Your task to perform on an android device: change text size in settings app Image 0: 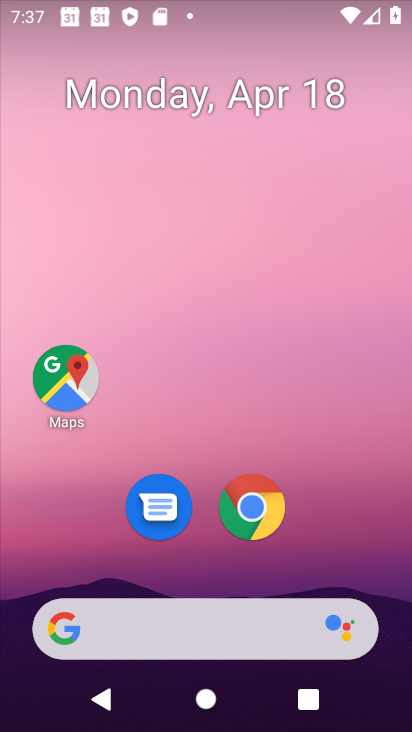
Step 0: drag from (13, 505) to (264, 57)
Your task to perform on an android device: change text size in settings app Image 1: 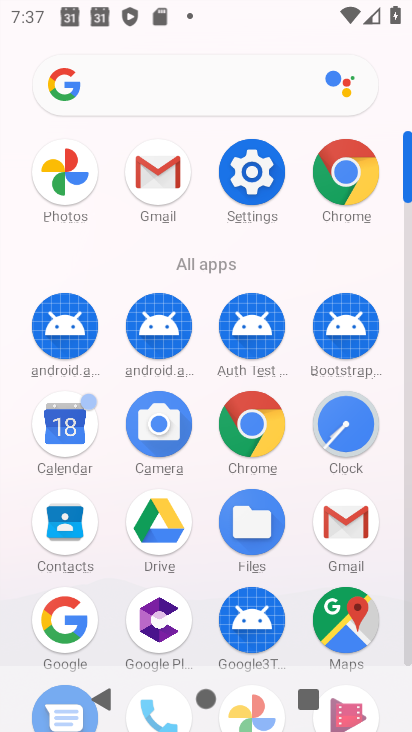
Step 1: click (269, 152)
Your task to perform on an android device: change text size in settings app Image 2: 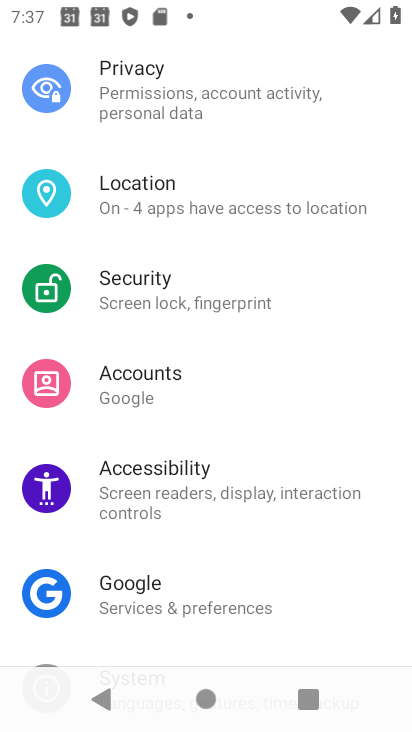
Step 2: drag from (196, 200) to (231, 560)
Your task to perform on an android device: change text size in settings app Image 3: 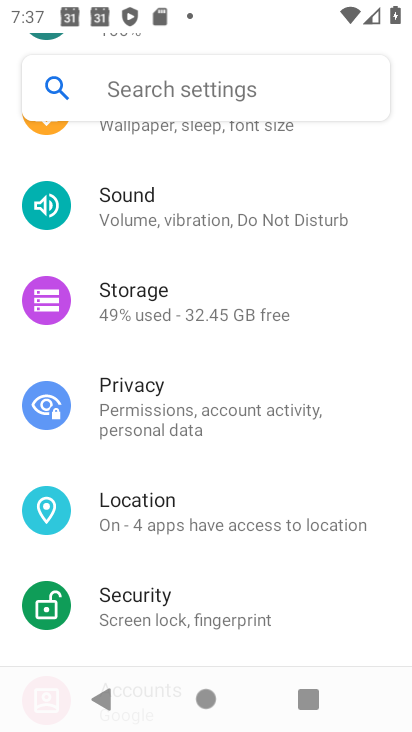
Step 3: click (213, 132)
Your task to perform on an android device: change text size in settings app Image 4: 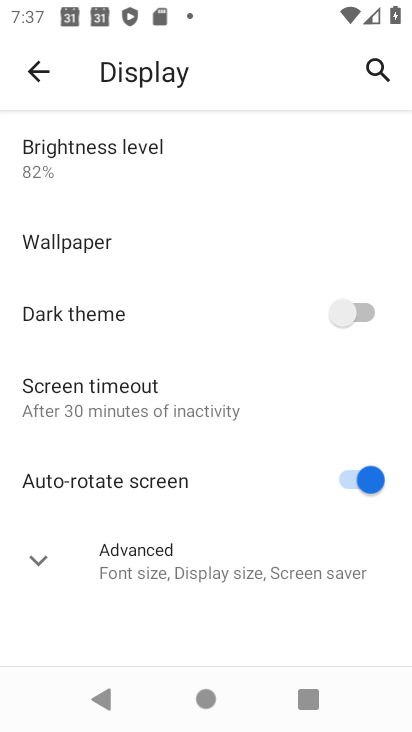
Step 4: click (27, 66)
Your task to perform on an android device: change text size in settings app Image 5: 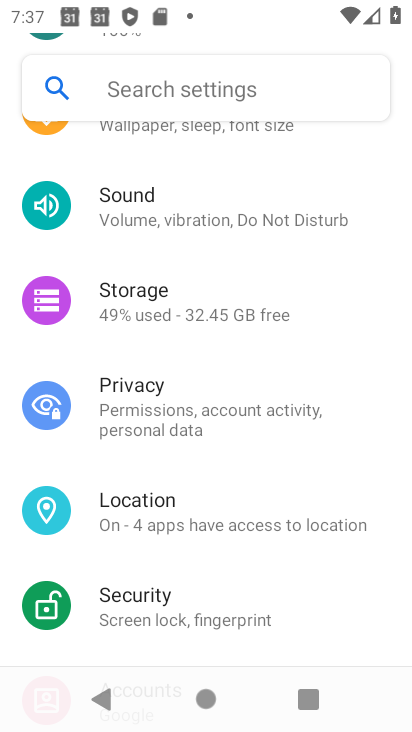
Step 5: drag from (132, 587) to (226, 266)
Your task to perform on an android device: change text size in settings app Image 6: 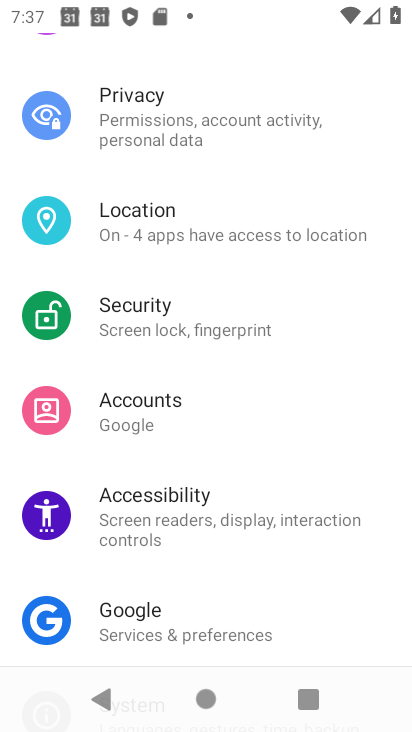
Step 6: click (200, 492)
Your task to perform on an android device: change text size in settings app Image 7: 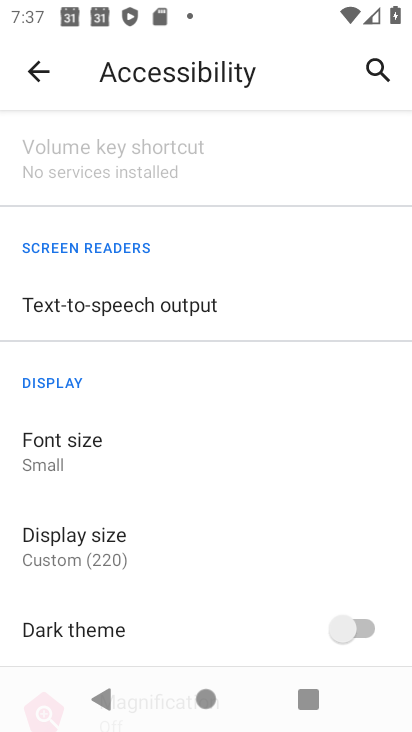
Step 7: click (214, 457)
Your task to perform on an android device: change text size in settings app Image 8: 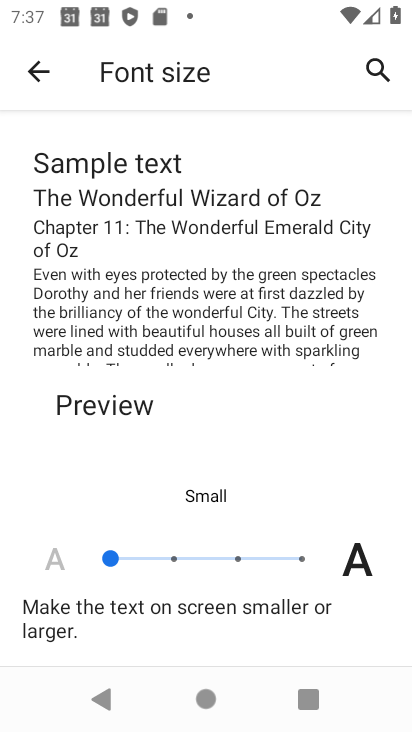
Step 8: click (171, 564)
Your task to perform on an android device: change text size in settings app Image 9: 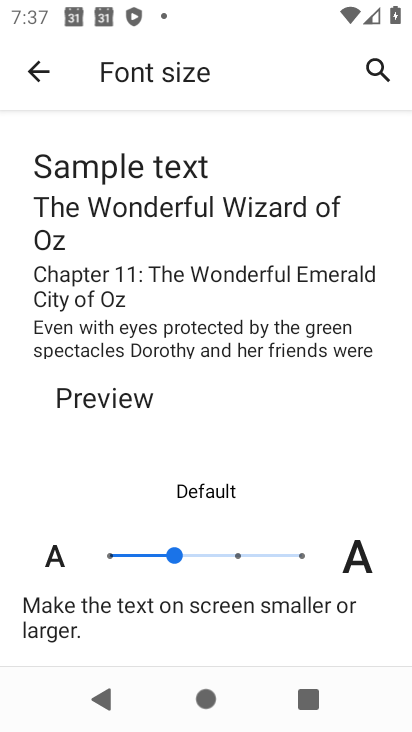
Step 9: task complete